Your task to perform on an android device: turn off sleep mode Image 0: 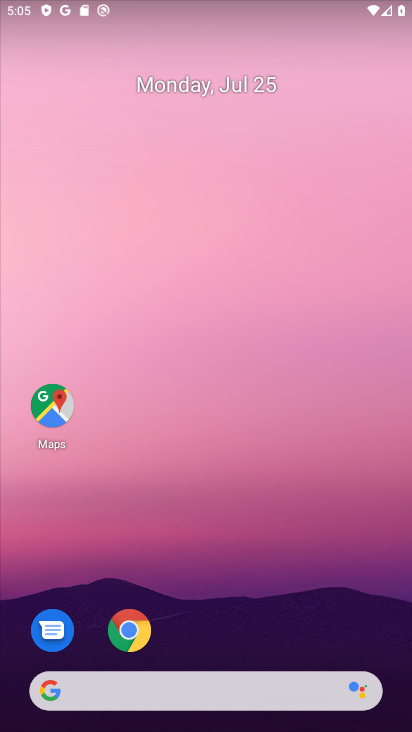
Step 0: drag from (245, 632) to (247, 220)
Your task to perform on an android device: turn off sleep mode Image 1: 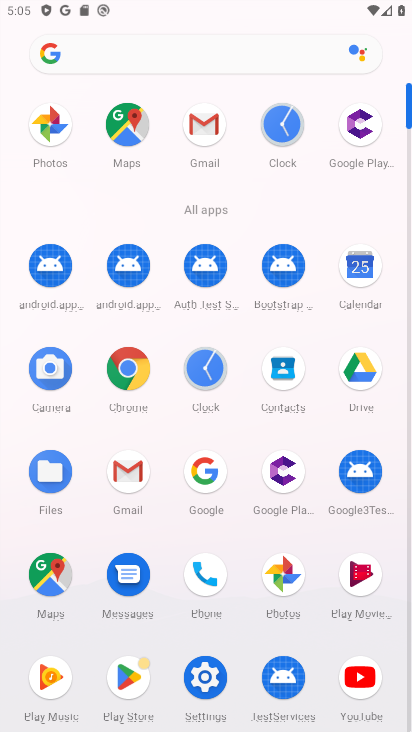
Step 1: click (200, 672)
Your task to perform on an android device: turn off sleep mode Image 2: 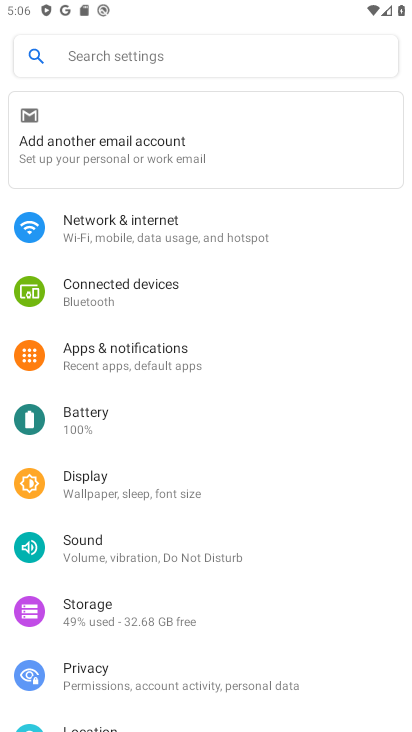
Step 2: click (117, 479)
Your task to perform on an android device: turn off sleep mode Image 3: 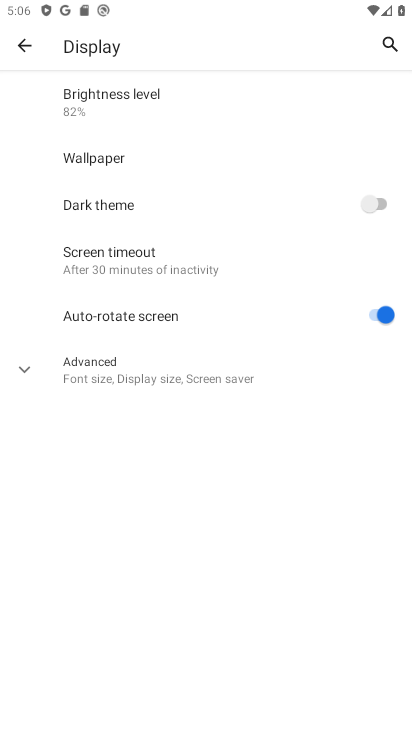
Step 3: click (65, 368)
Your task to perform on an android device: turn off sleep mode Image 4: 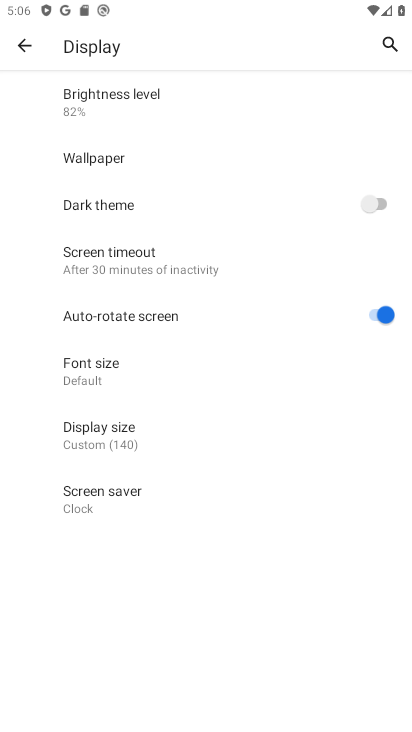
Step 4: task complete